Your task to perform on an android device: open app "Mercado Libre" (install if not already installed) Image 0: 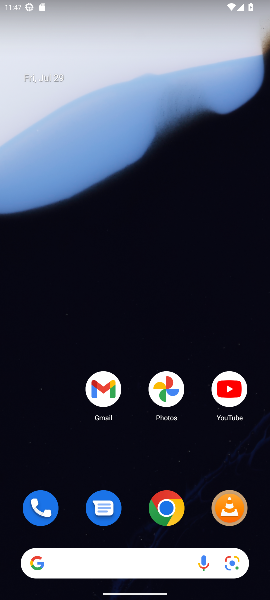
Step 0: drag from (163, 563) to (167, 165)
Your task to perform on an android device: open app "Mercado Libre" (install if not already installed) Image 1: 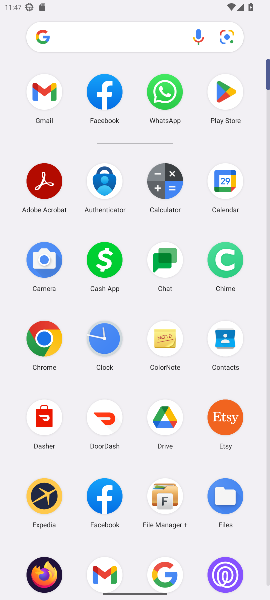
Step 1: click (226, 90)
Your task to perform on an android device: open app "Mercado Libre" (install if not already installed) Image 2: 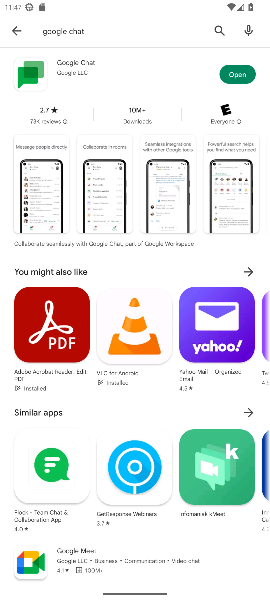
Step 2: click (220, 30)
Your task to perform on an android device: open app "Mercado Libre" (install if not already installed) Image 3: 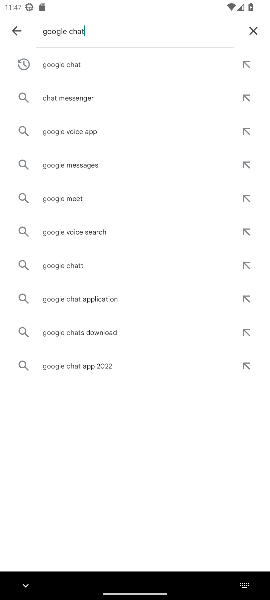
Step 3: click (254, 29)
Your task to perform on an android device: open app "Mercado Libre" (install if not already installed) Image 4: 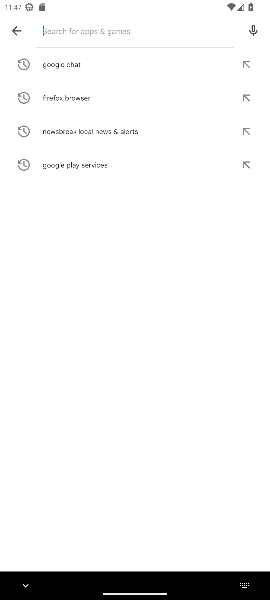
Step 4: type "mercado libre"
Your task to perform on an android device: open app "Mercado Libre" (install if not already installed) Image 5: 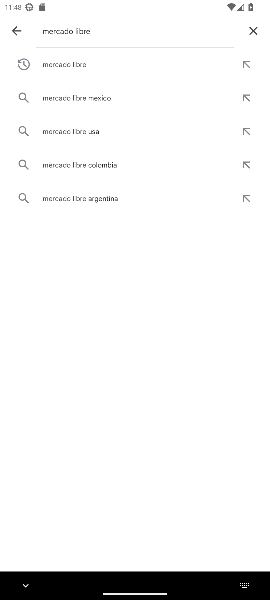
Step 5: click (92, 62)
Your task to perform on an android device: open app "Mercado Libre" (install if not already installed) Image 6: 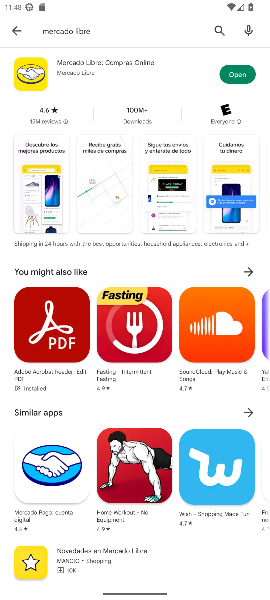
Step 6: task complete